Your task to perform on an android device: open app "HBO Max: Stream TV & Movies" (install if not already installed) Image 0: 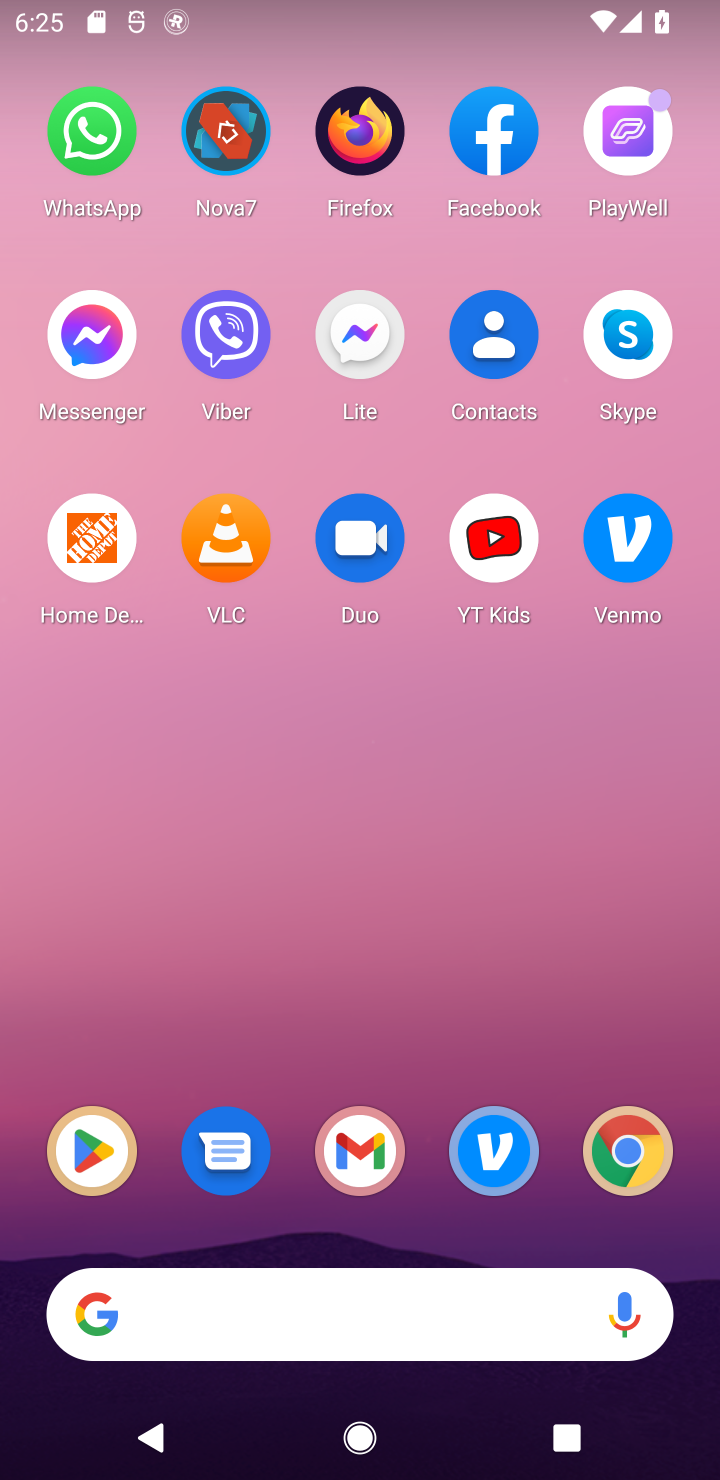
Step 0: click (95, 1155)
Your task to perform on an android device: open app "HBO Max: Stream TV & Movies" (install if not already installed) Image 1: 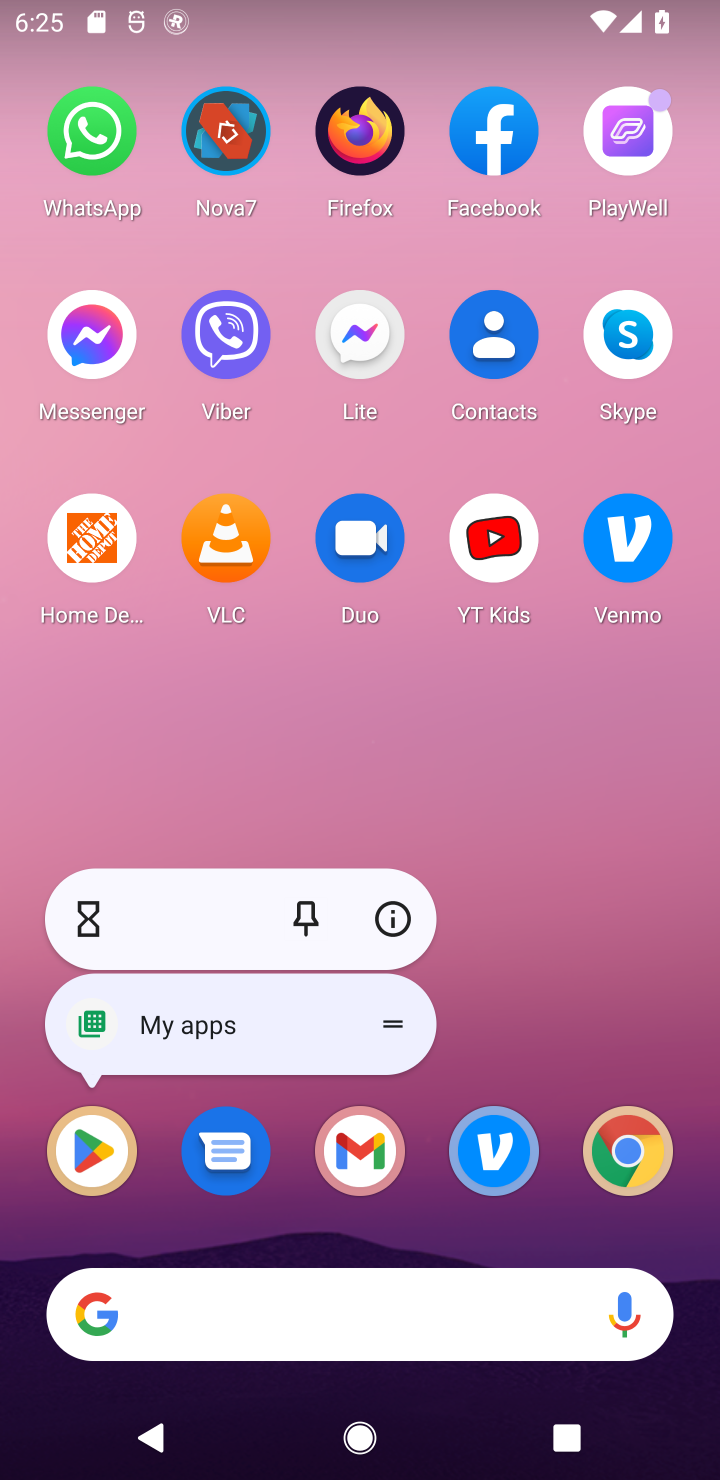
Step 1: click (95, 1155)
Your task to perform on an android device: open app "HBO Max: Stream TV & Movies" (install if not already installed) Image 2: 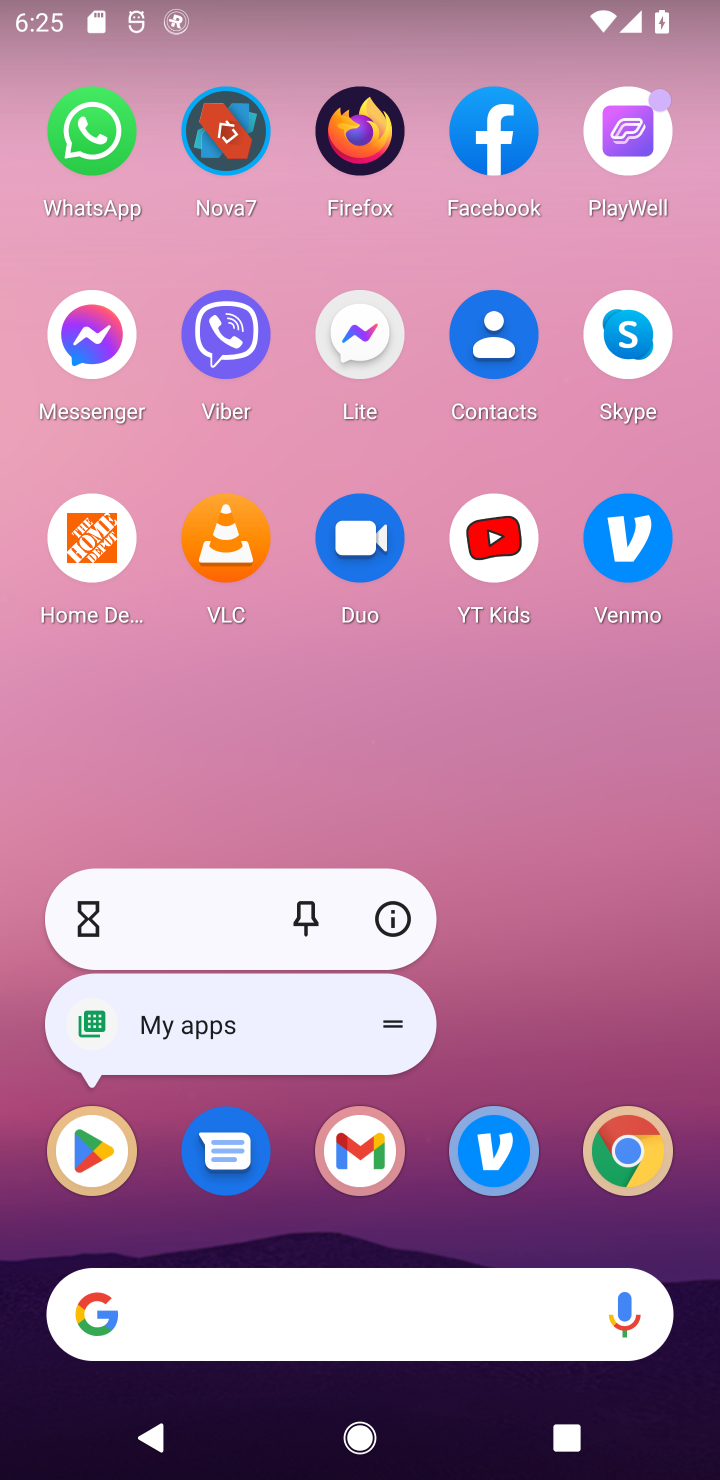
Step 2: click (95, 1155)
Your task to perform on an android device: open app "HBO Max: Stream TV & Movies" (install if not already installed) Image 3: 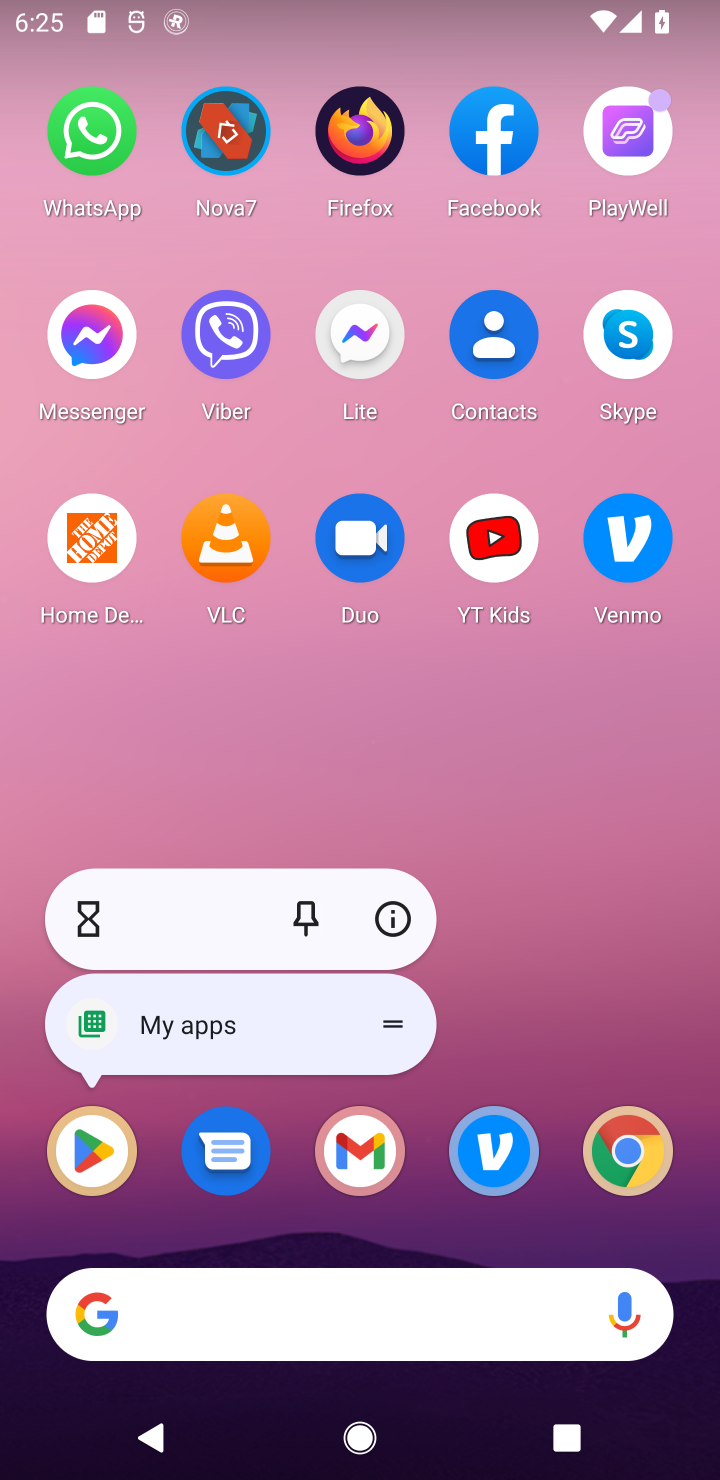
Step 3: click (95, 1155)
Your task to perform on an android device: open app "HBO Max: Stream TV & Movies" (install if not already installed) Image 4: 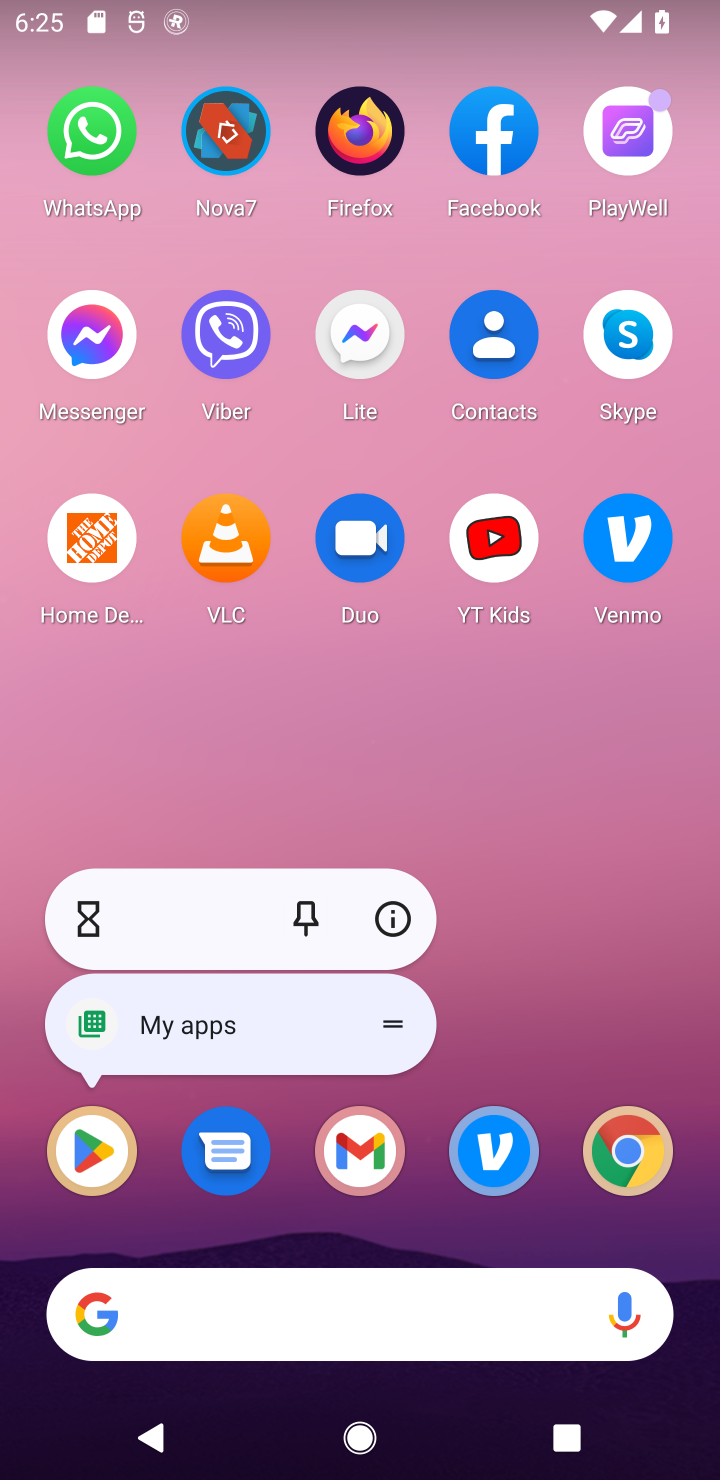
Step 4: click (95, 1155)
Your task to perform on an android device: open app "HBO Max: Stream TV & Movies" (install if not already installed) Image 5: 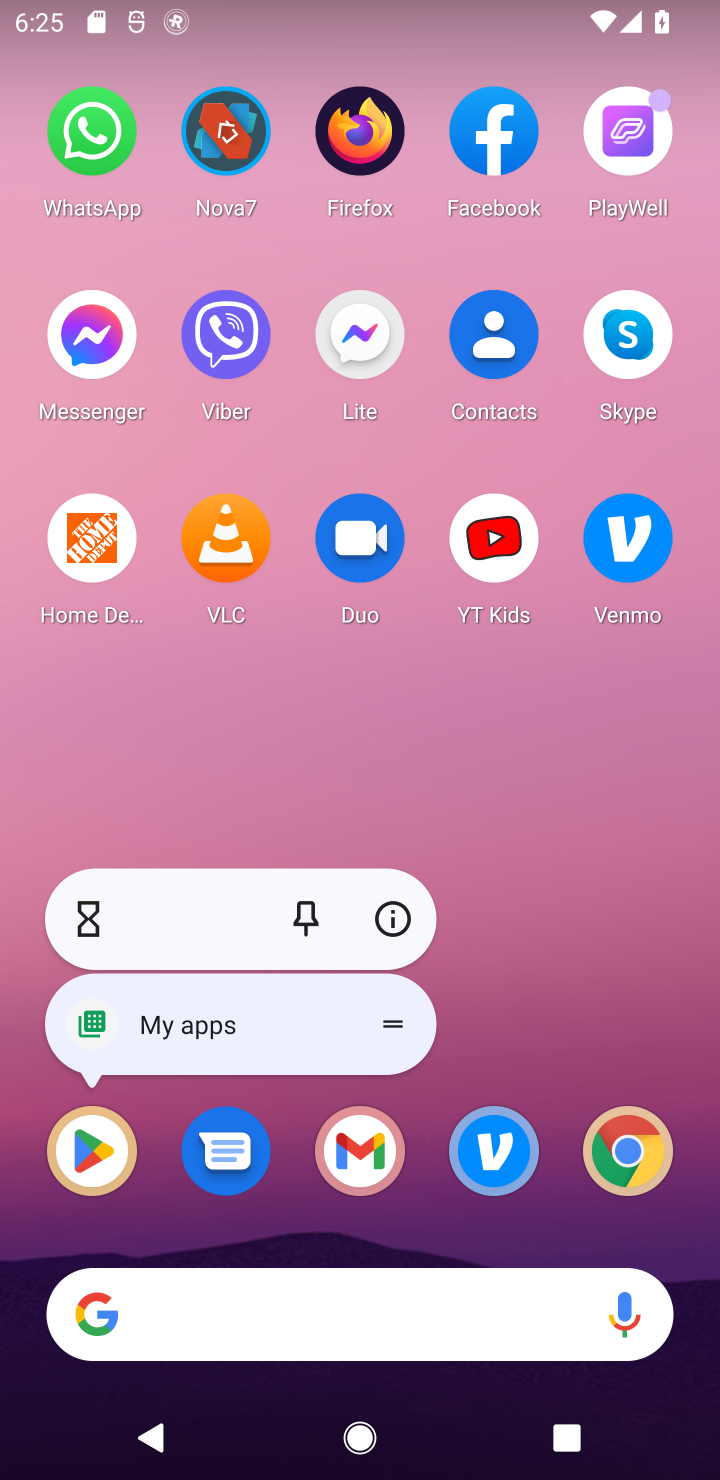
Step 5: click (95, 1155)
Your task to perform on an android device: open app "HBO Max: Stream TV & Movies" (install if not already installed) Image 6: 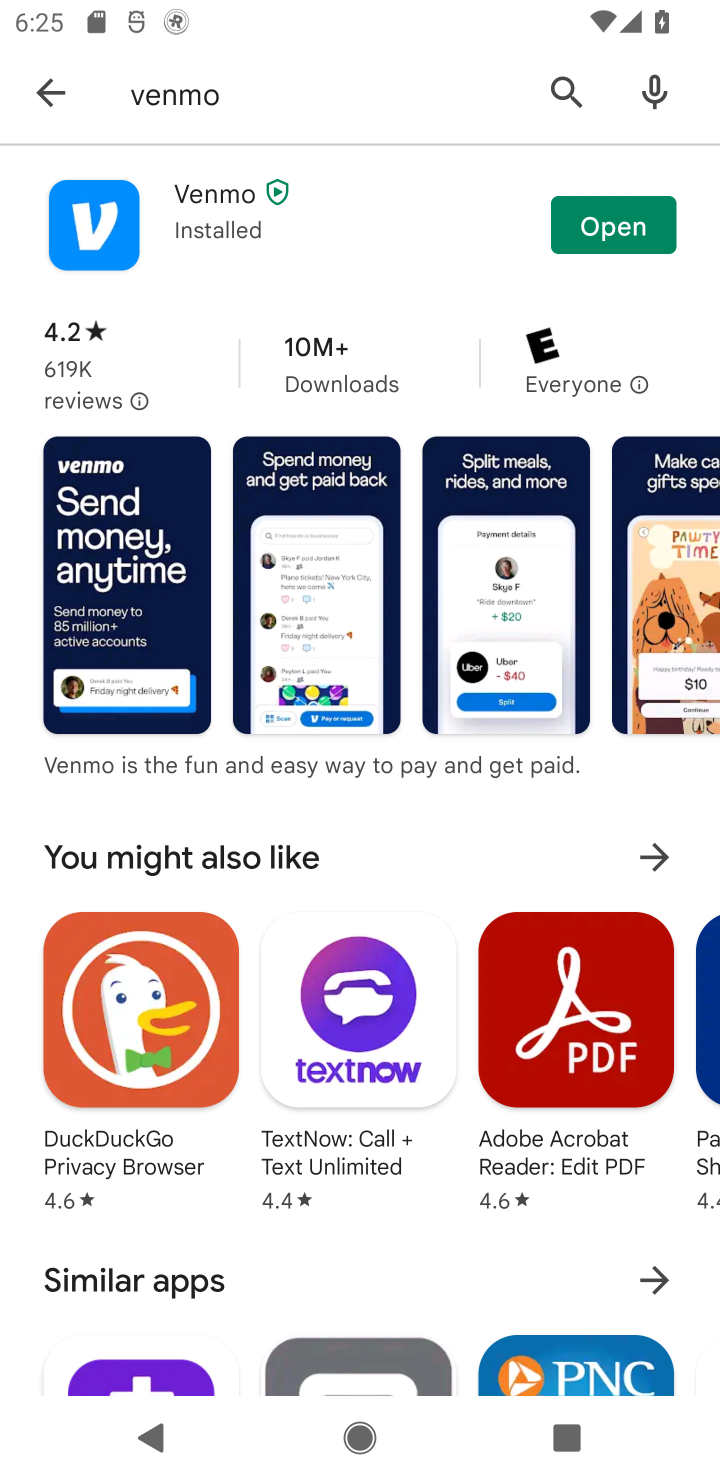
Step 6: click (592, 96)
Your task to perform on an android device: open app "HBO Max: Stream TV & Movies" (install if not already installed) Image 7: 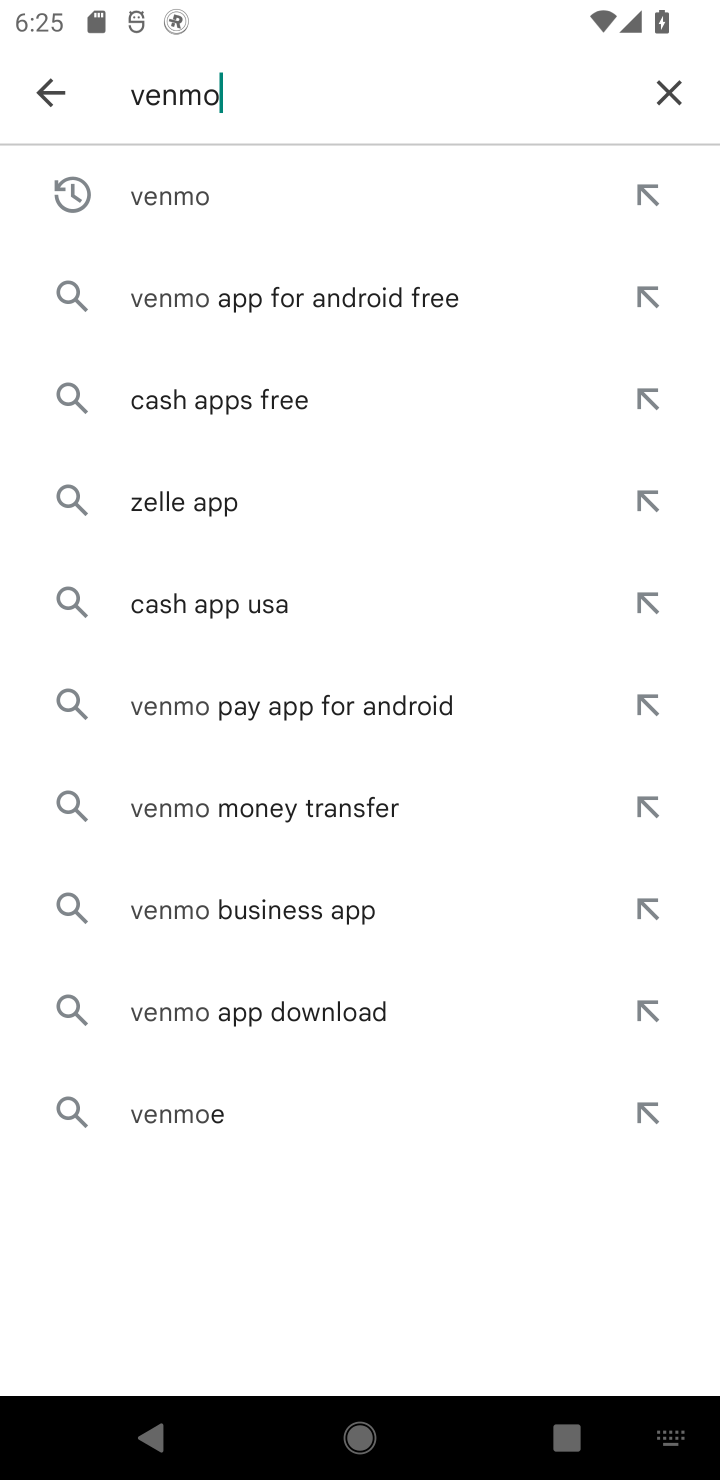
Step 7: click (692, 108)
Your task to perform on an android device: open app "HBO Max: Stream TV & Movies" (install if not already installed) Image 8: 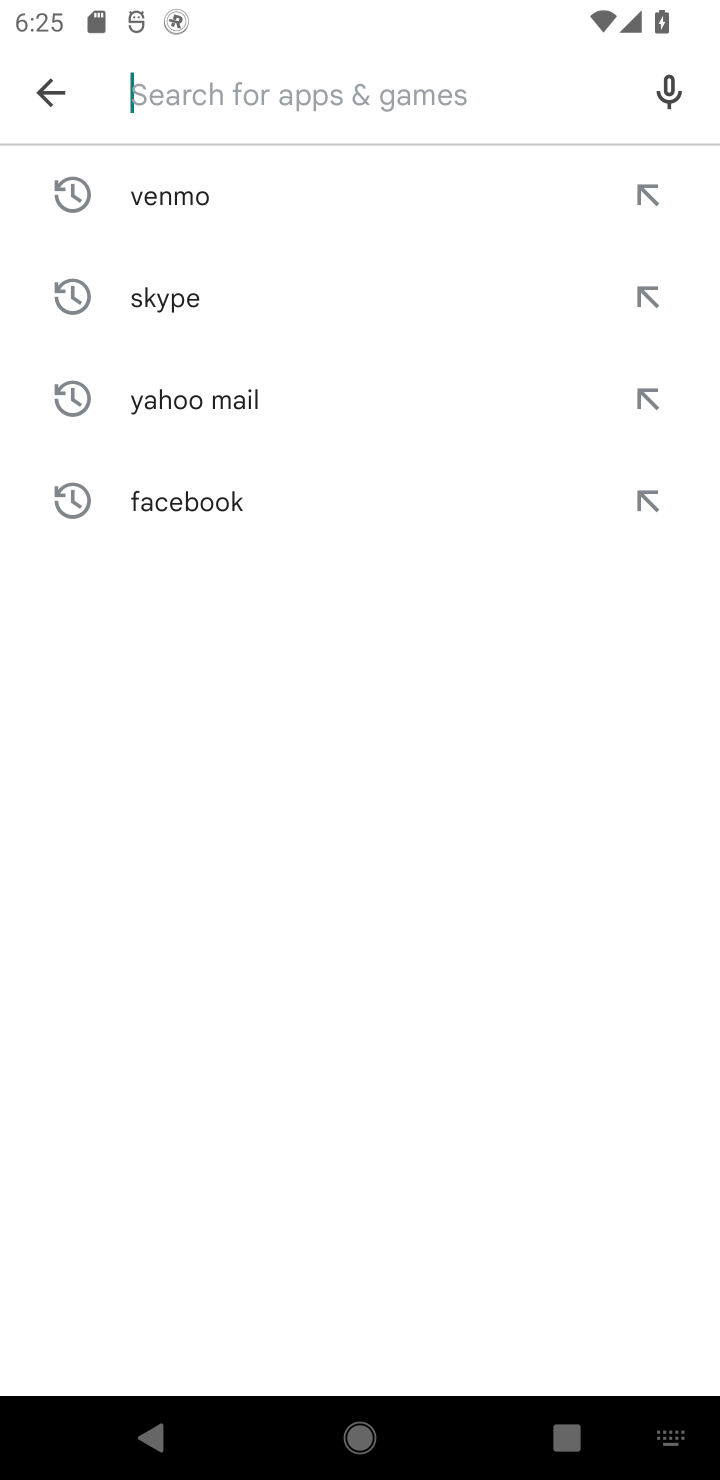
Step 8: type "HBO Max: Stream TV & Movies"
Your task to perform on an android device: open app "HBO Max: Stream TV & Movies" (install if not already installed) Image 9: 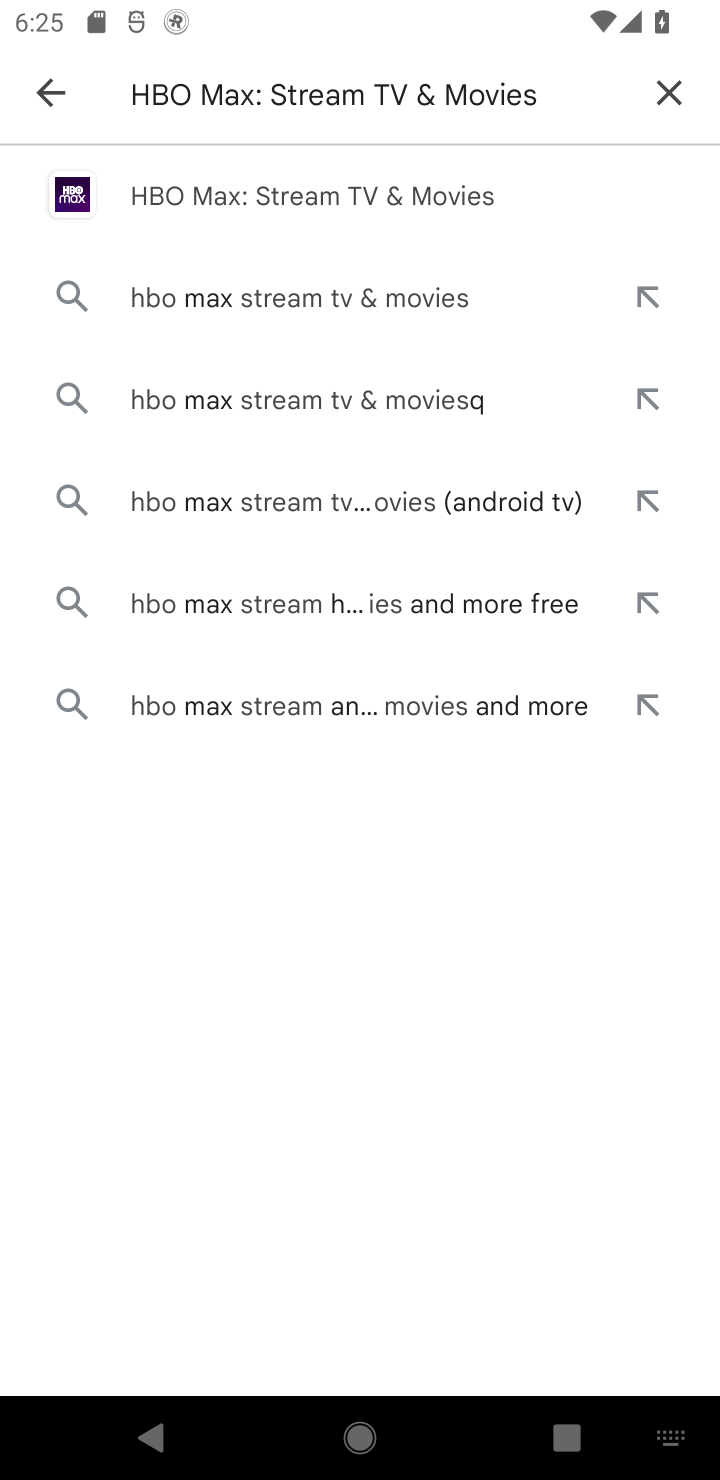
Step 9: click (423, 203)
Your task to perform on an android device: open app "HBO Max: Stream TV & Movies" (install if not already installed) Image 10: 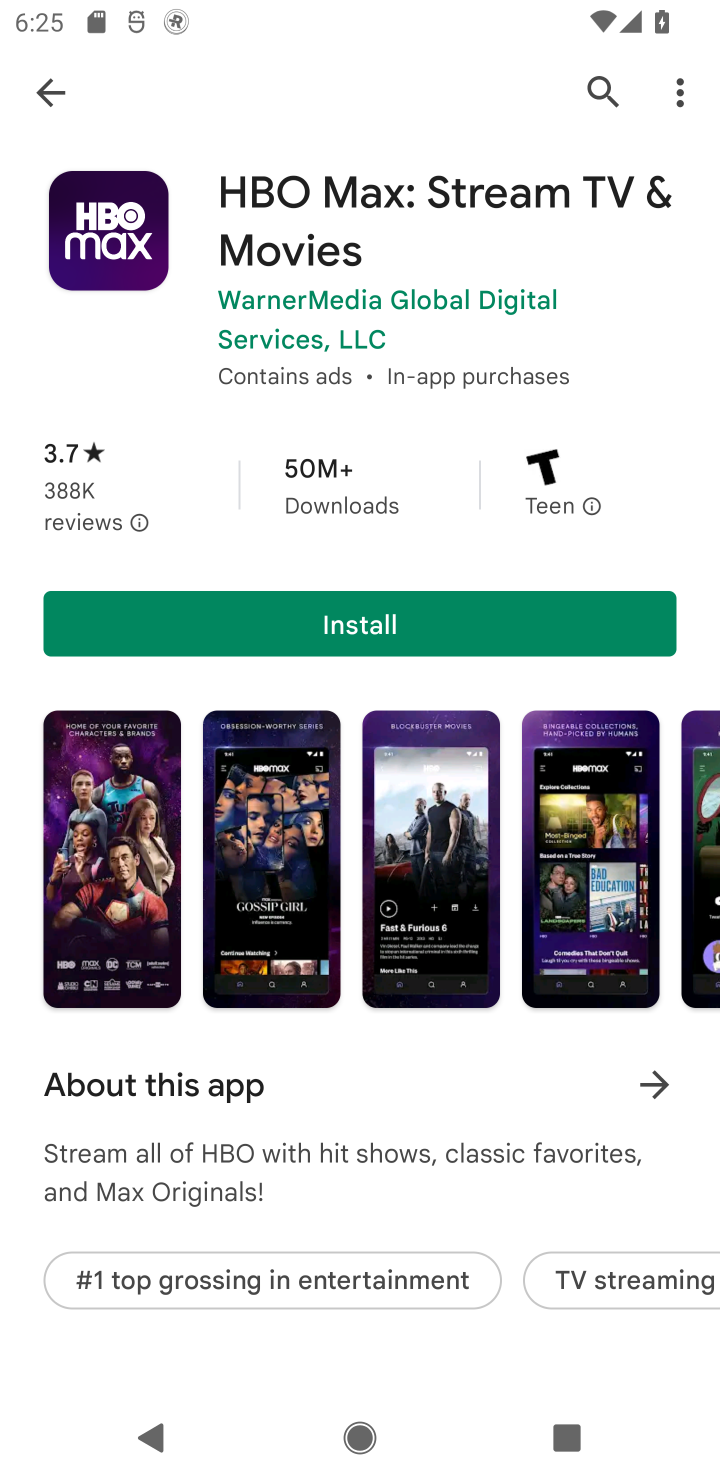
Step 10: click (283, 603)
Your task to perform on an android device: open app "HBO Max: Stream TV & Movies" (install if not already installed) Image 11: 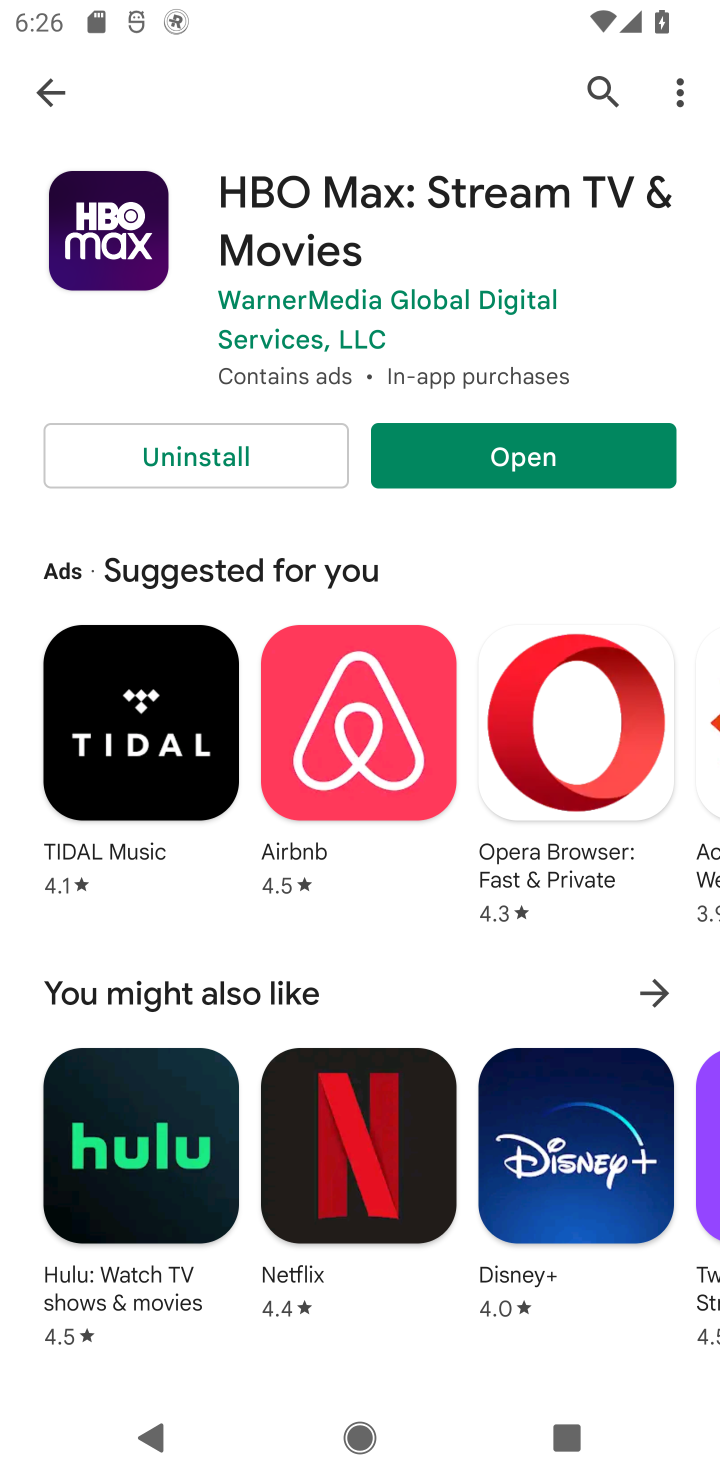
Step 11: click (530, 469)
Your task to perform on an android device: open app "HBO Max: Stream TV & Movies" (install if not already installed) Image 12: 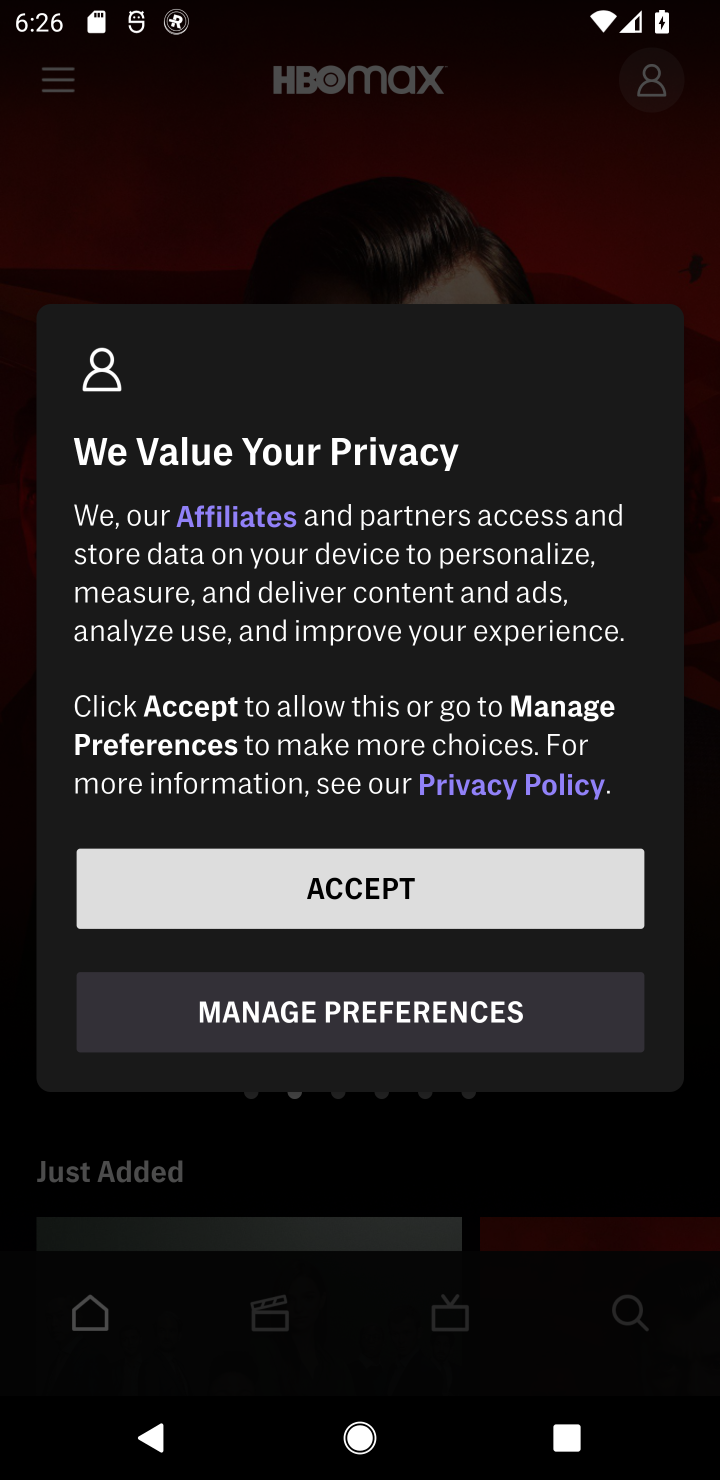
Step 12: task complete